Your task to perform on an android device: toggle priority inbox in the gmail app Image 0: 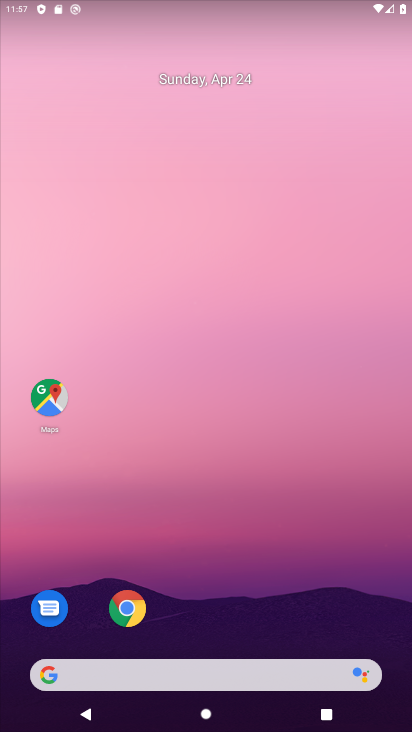
Step 0: drag from (223, 730) to (223, 93)
Your task to perform on an android device: toggle priority inbox in the gmail app Image 1: 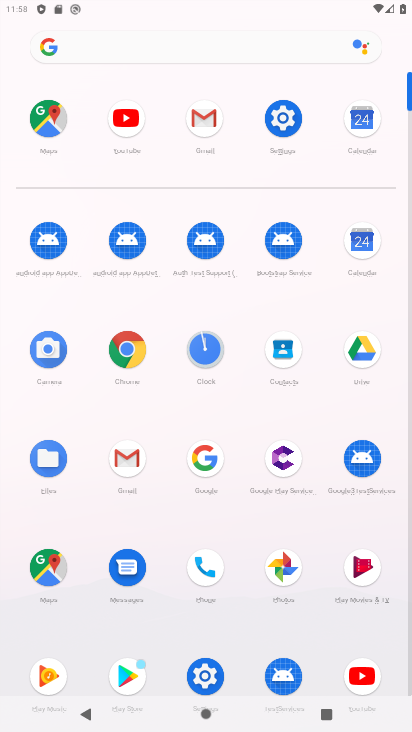
Step 1: click (124, 456)
Your task to perform on an android device: toggle priority inbox in the gmail app Image 2: 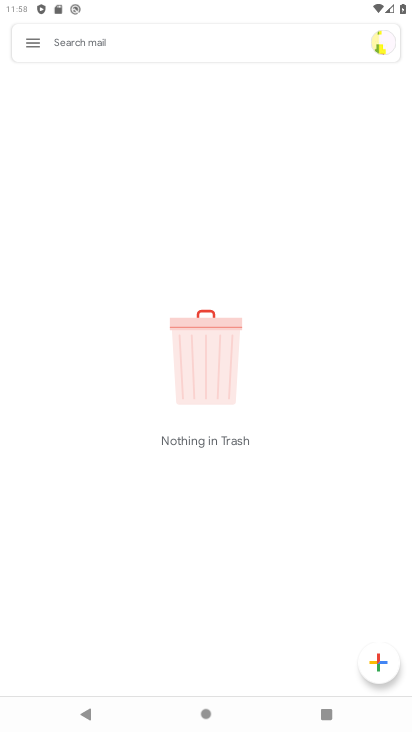
Step 2: click (31, 47)
Your task to perform on an android device: toggle priority inbox in the gmail app Image 3: 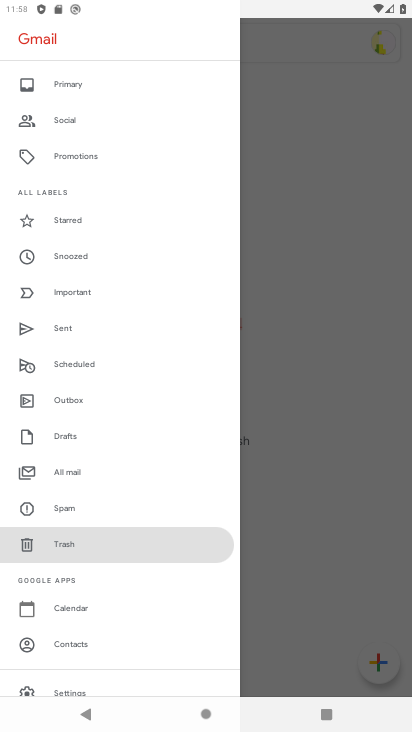
Step 3: click (82, 686)
Your task to perform on an android device: toggle priority inbox in the gmail app Image 4: 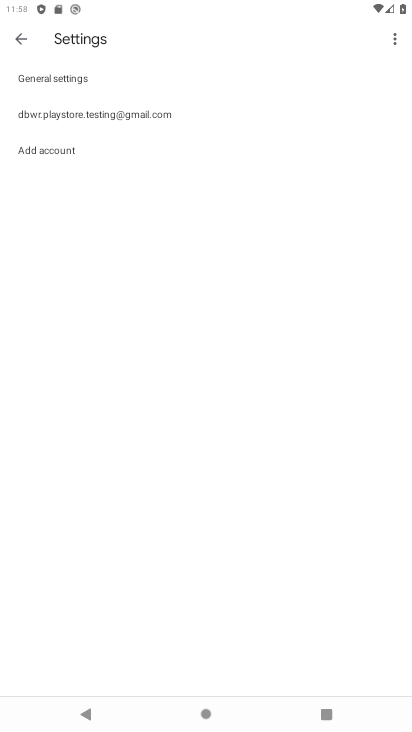
Step 4: click (136, 111)
Your task to perform on an android device: toggle priority inbox in the gmail app Image 5: 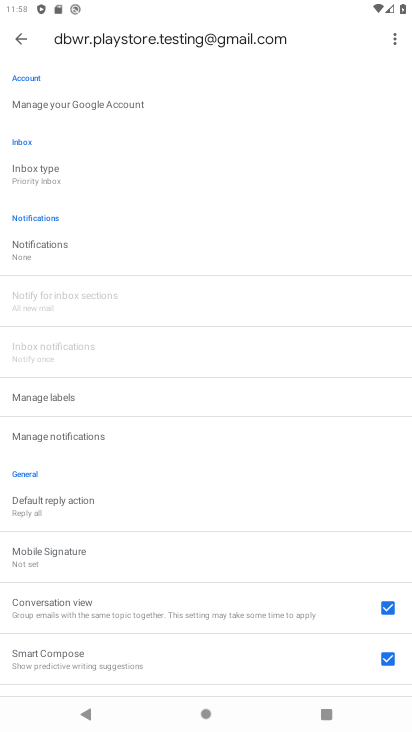
Step 5: click (43, 171)
Your task to perform on an android device: toggle priority inbox in the gmail app Image 6: 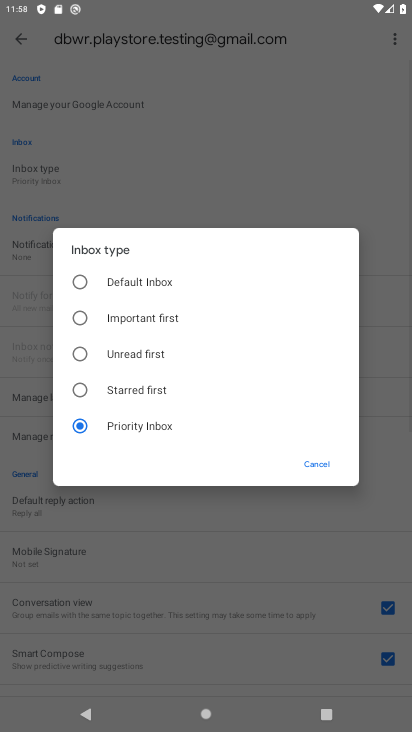
Step 6: click (109, 280)
Your task to perform on an android device: toggle priority inbox in the gmail app Image 7: 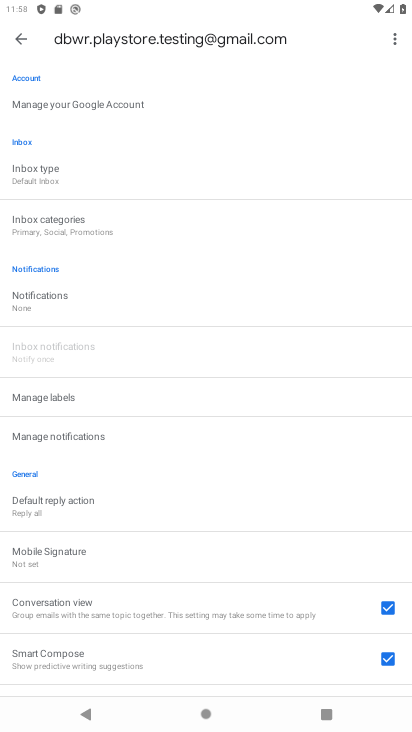
Step 7: task complete